Your task to perform on an android device: Open calendar and show me the third week of next month Image 0: 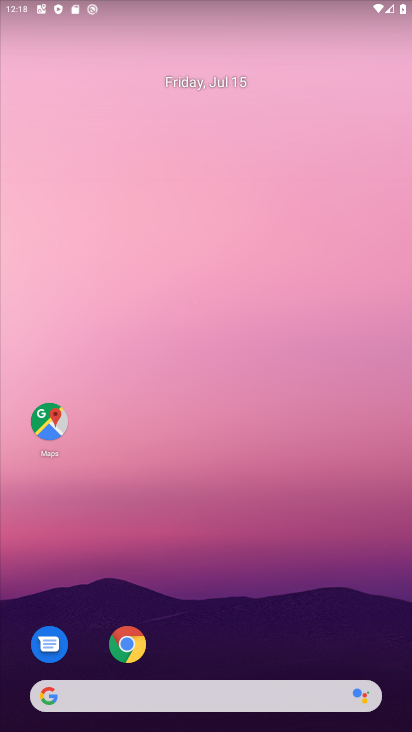
Step 0: drag from (33, 571) to (317, 23)
Your task to perform on an android device: Open calendar and show me the third week of next month Image 1: 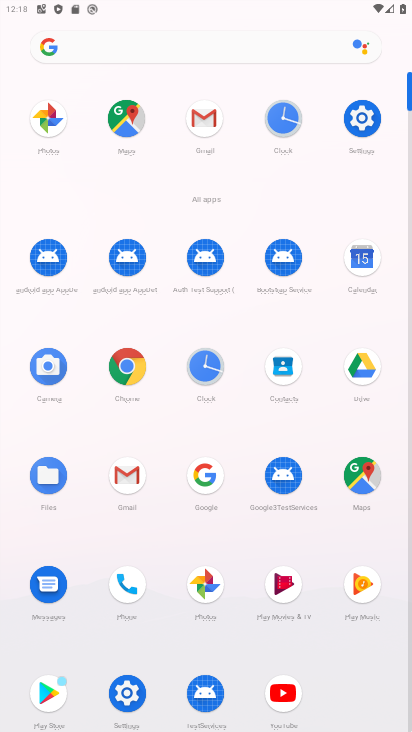
Step 1: click (368, 277)
Your task to perform on an android device: Open calendar and show me the third week of next month Image 2: 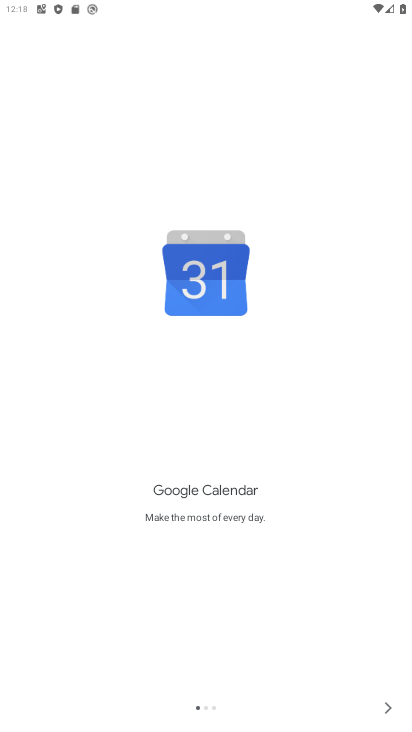
Step 2: click (391, 712)
Your task to perform on an android device: Open calendar and show me the third week of next month Image 3: 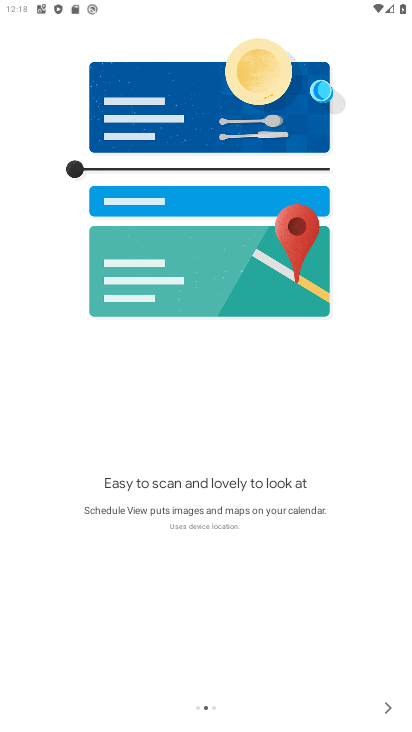
Step 3: click (391, 712)
Your task to perform on an android device: Open calendar and show me the third week of next month Image 4: 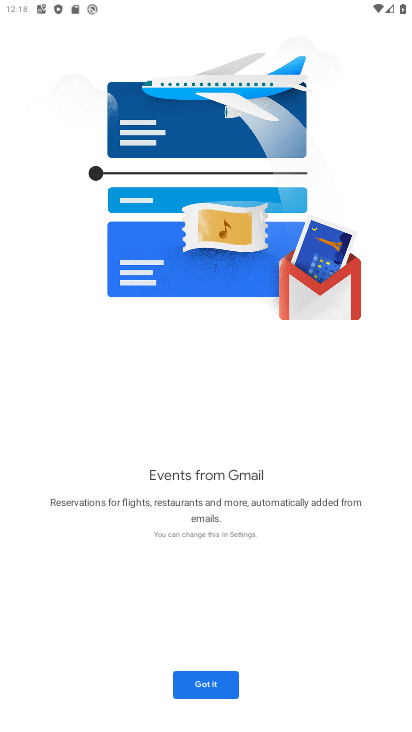
Step 4: click (240, 683)
Your task to perform on an android device: Open calendar and show me the third week of next month Image 5: 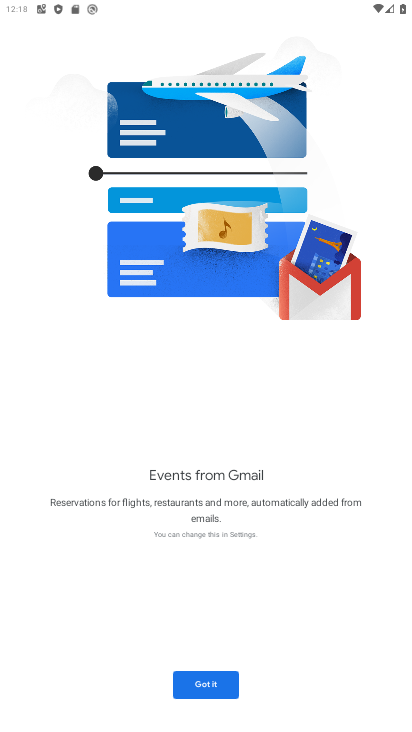
Step 5: click (220, 683)
Your task to perform on an android device: Open calendar and show me the third week of next month Image 6: 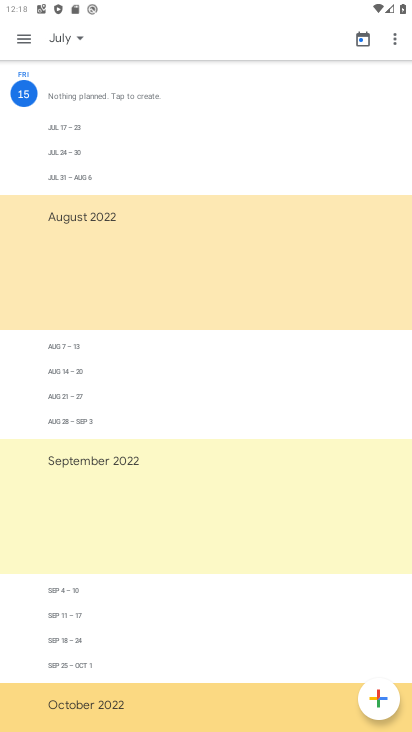
Step 6: click (61, 37)
Your task to perform on an android device: Open calendar and show me the third week of next month Image 7: 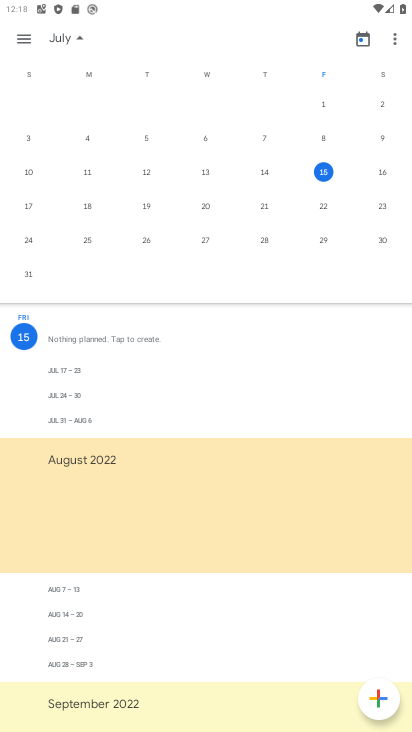
Step 7: drag from (403, 199) to (5, 168)
Your task to perform on an android device: Open calendar and show me the third week of next month Image 8: 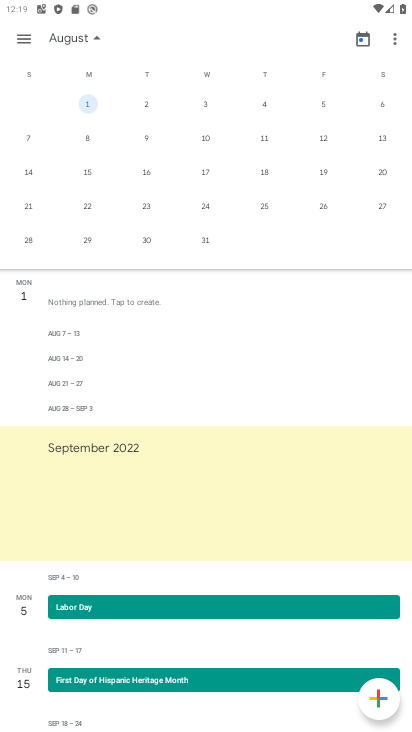
Step 8: click (82, 141)
Your task to perform on an android device: Open calendar and show me the third week of next month Image 9: 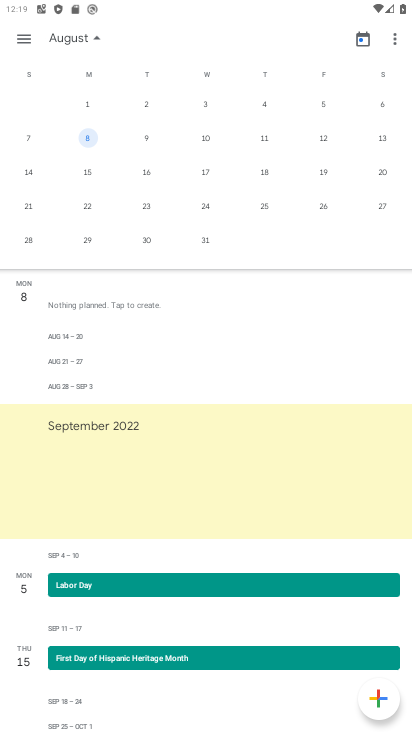
Step 9: click (87, 184)
Your task to perform on an android device: Open calendar and show me the third week of next month Image 10: 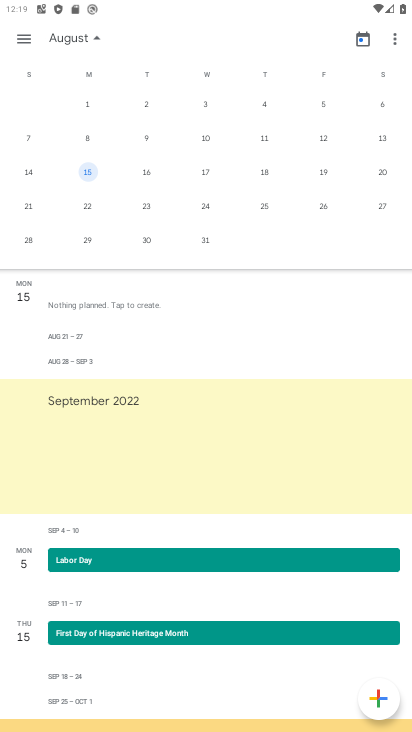
Step 10: task complete